Your task to perform on an android device: Go to eBay Image 0: 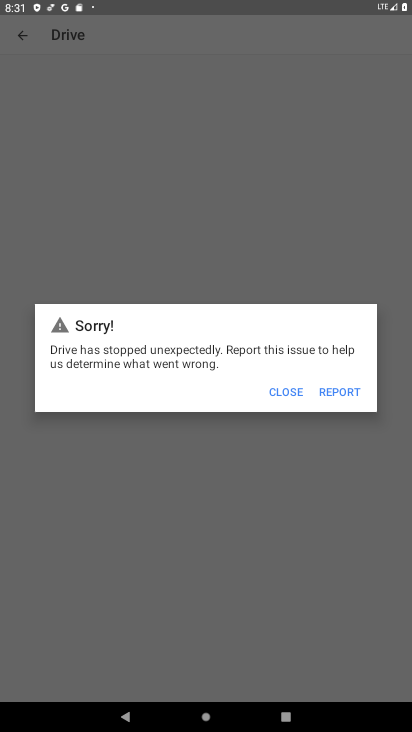
Step 0: task complete